Your task to perform on an android device: move a message to another label in the gmail app Image 0: 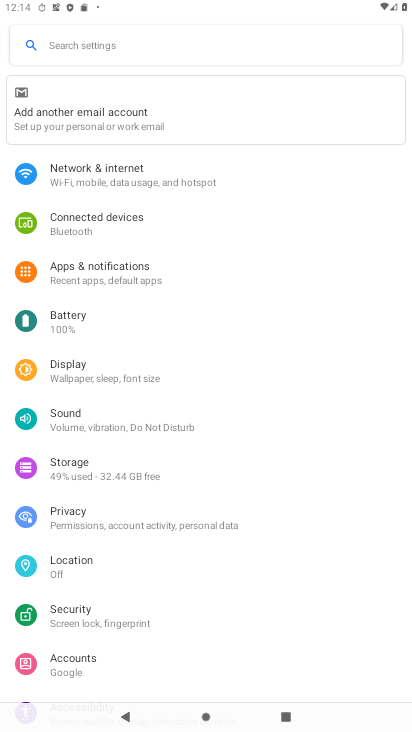
Step 0: press home button
Your task to perform on an android device: move a message to another label in the gmail app Image 1: 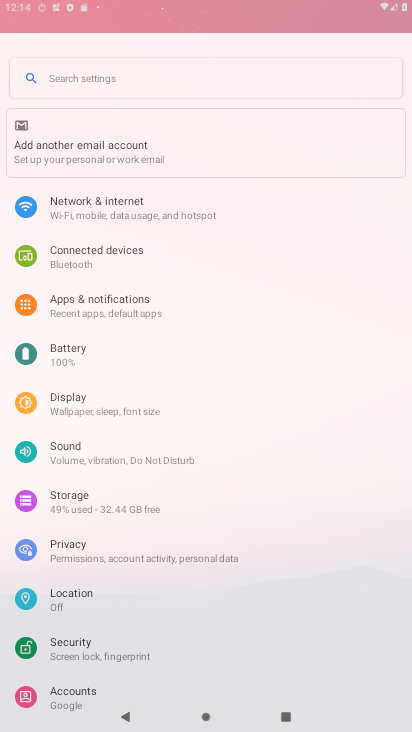
Step 1: drag from (380, 675) to (173, 16)
Your task to perform on an android device: move a message to another label in the gmail app Image 2: 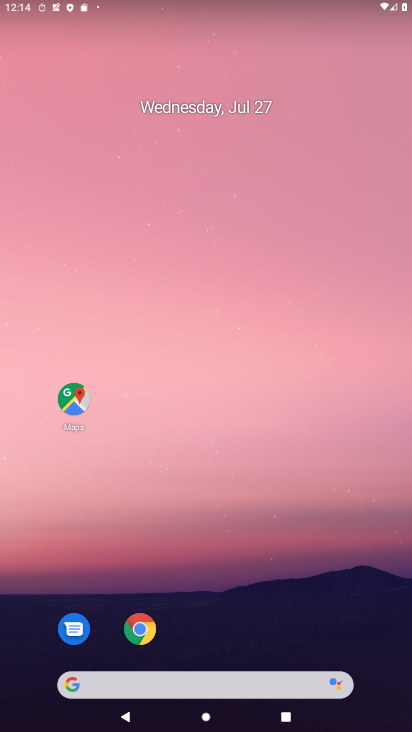
Step 2: drag from (393, 619) to (201, 36)
Your task to perform on an android device: move a message to another label in the gmail app Image 3: 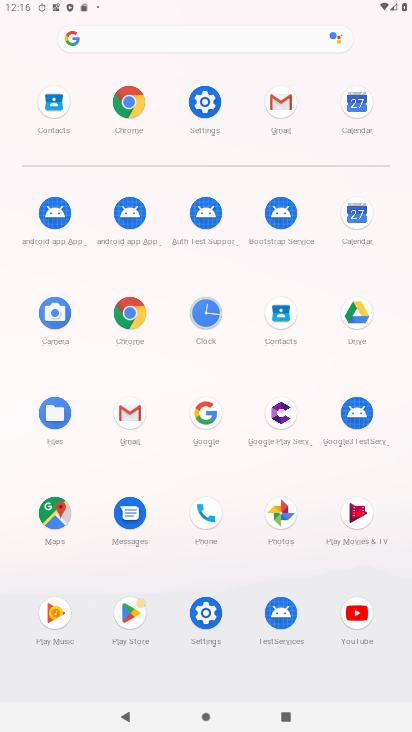
Step 3: click (118, 421)
Your task to perform on an android device: move a message to another label in the gmail app Image 4: 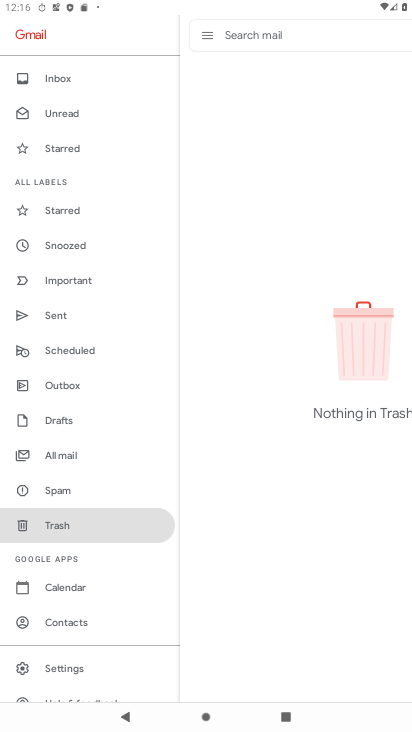
Step 4: task complete